Your task to perform on an android device: Go to privacy settings Image 0: 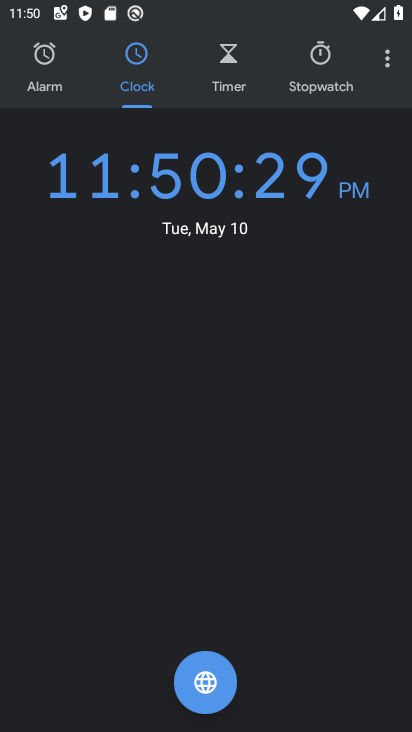
Step 0: press home button
Your task to perform on an android device: Go to privacy settings Image 1: 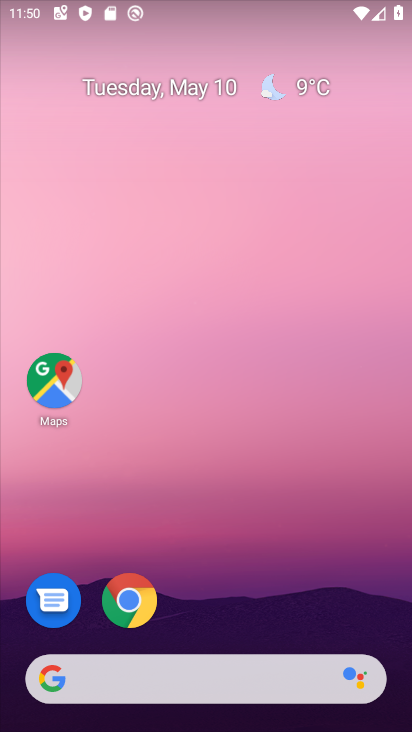
Step 1: drag from (223, 710) to (336, 45)
Your task to perform on an android device: Go to privacy settings Image 2: 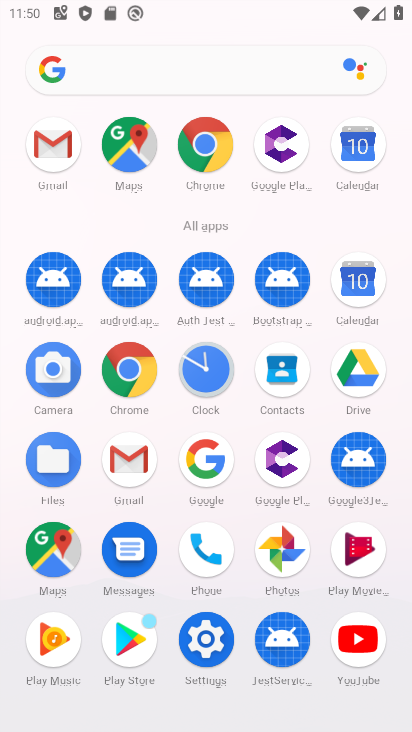
Step 2: click (210, 641)
Your task to perform on an android device: Go to privacy settings Image 3: 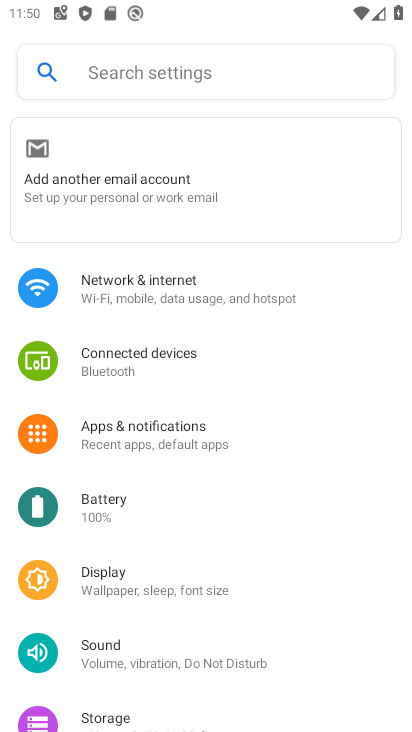
Step 3: drag from (287, 685) to (407, 305)
Your task to perform on an android device: Go to privacy settings Image 4: 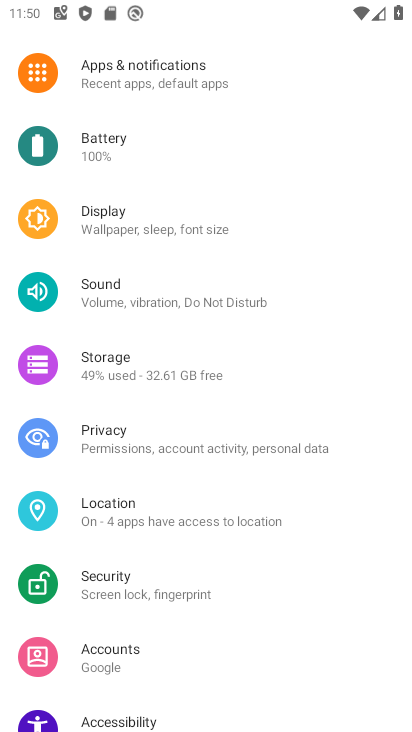
Step 4: click (178, 434)
Your task to perform on an android device: Go to privacy settings Image 5: 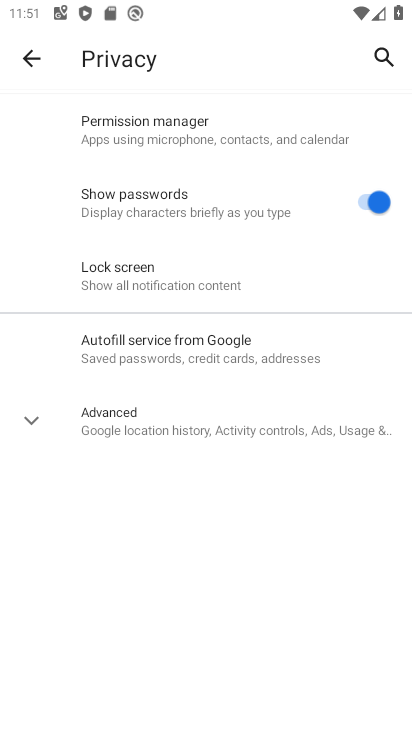
Step 5: task complete